Your task to perform on an android device: delete browsing data in the chrome app Image 0: 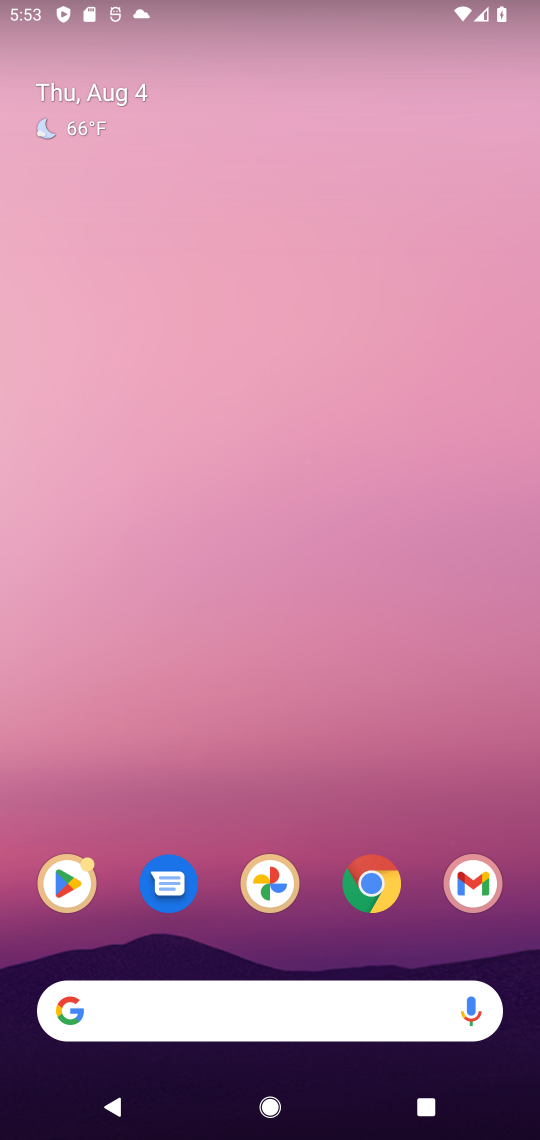
Step 0: click (379, 891)
Your task to perform on an android device: delete browsing data in the chrome app Image 1: 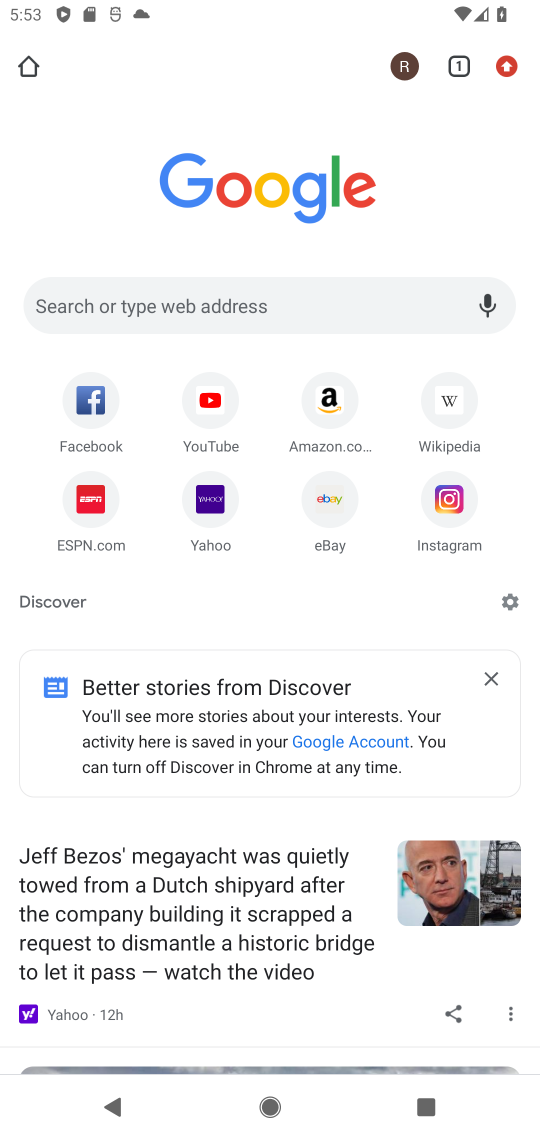
Step 1: click (499, 59)
Your task to perform on an android device: delete browsing data in the chrome app Image 2: 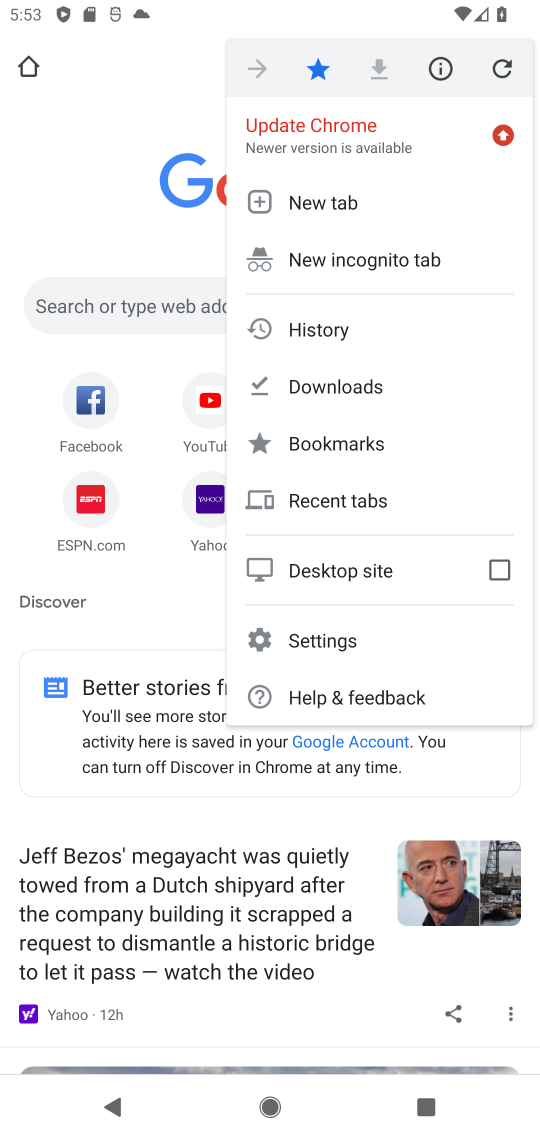
Step 2: click (352, 641)
Your task to perform on an android device: delete browsing data in the chrome app Image 3: 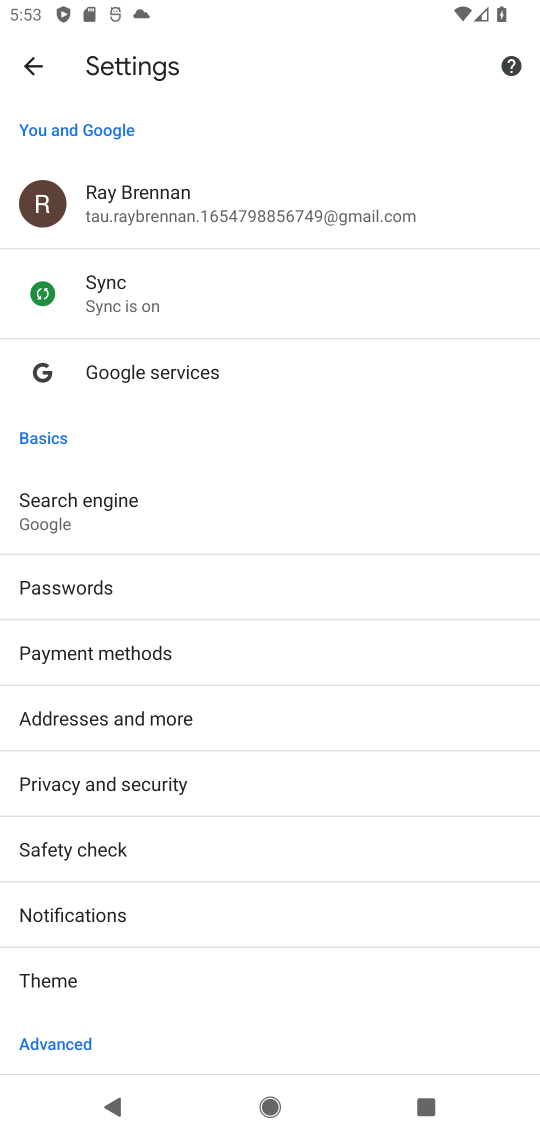
Step 3: click (28, 62)
Your task to perform on an android device: delete browsing data in the chrome app Image 4: 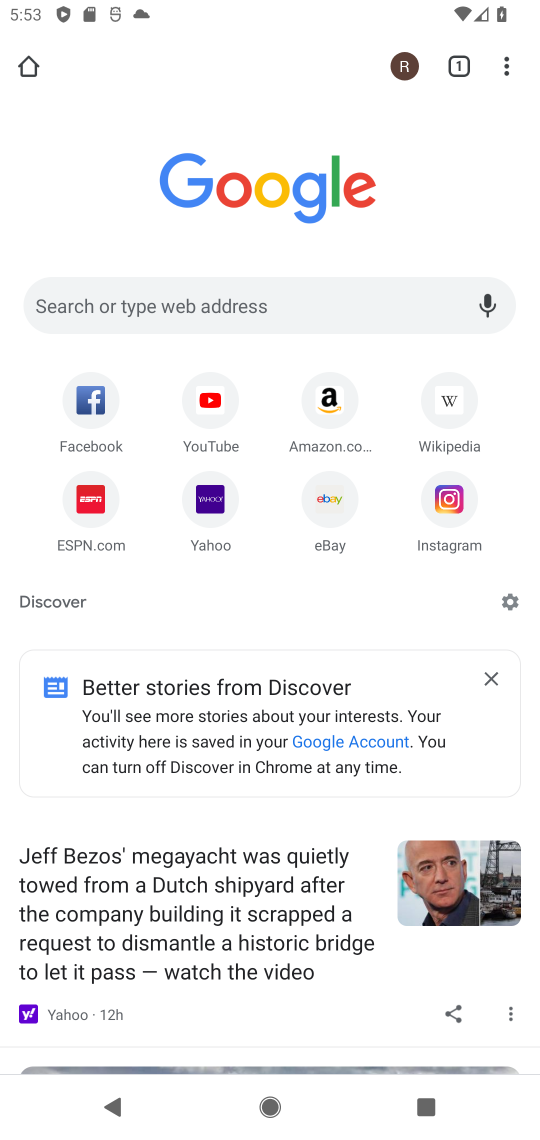
Step 4: click (512, 72)
Your task to perform on an android device: delete browsing data in the chrome app Image 5: 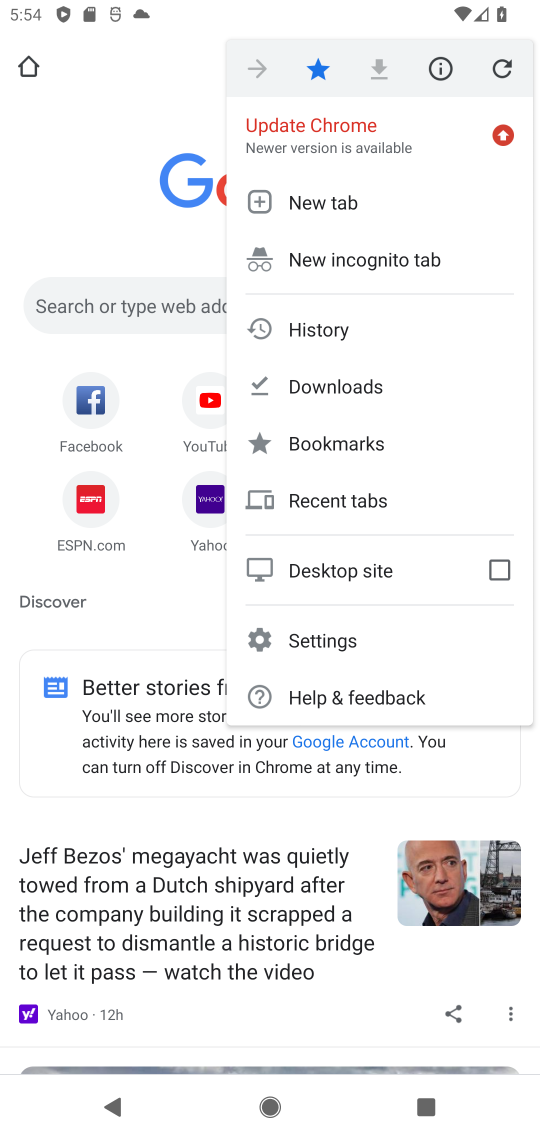
Step 5: click (343, 329)
Your task to perform on an android device: delete browsing data in the chrome app Image 6: 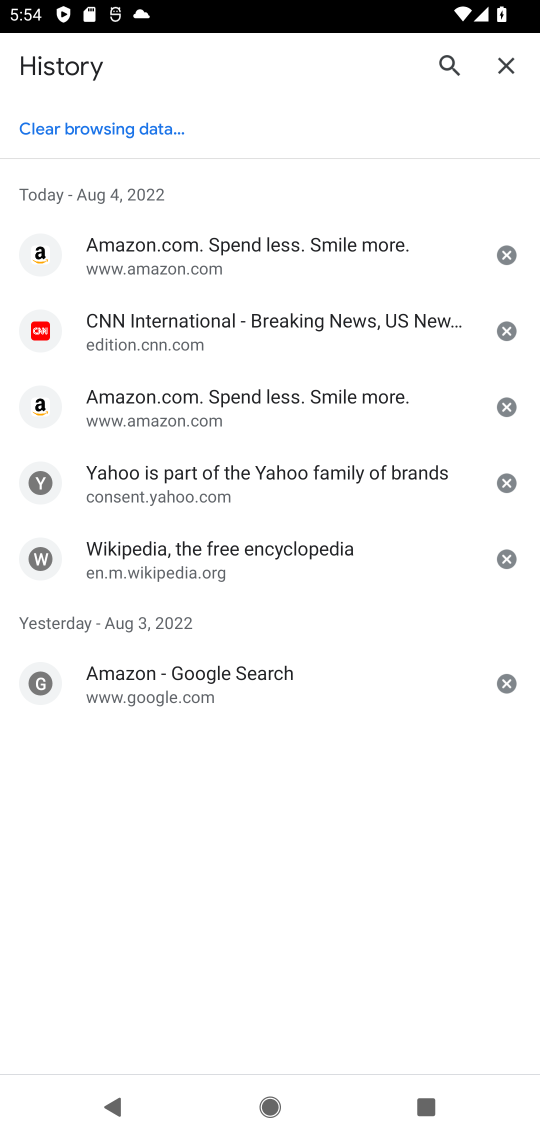
Step 6: click (153, 132)
Your task to perform on an android device: delete browsing data in the chrome app Image 7: 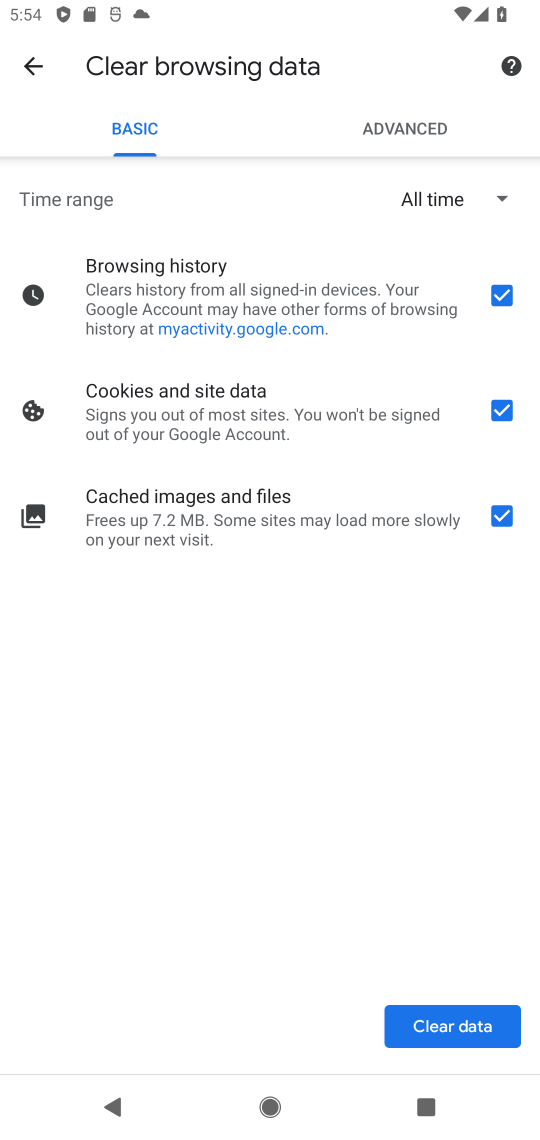
Step 7: click (478, 1025)
Your task to perform on an android device: delete browsing data in the chrome app Image 8: 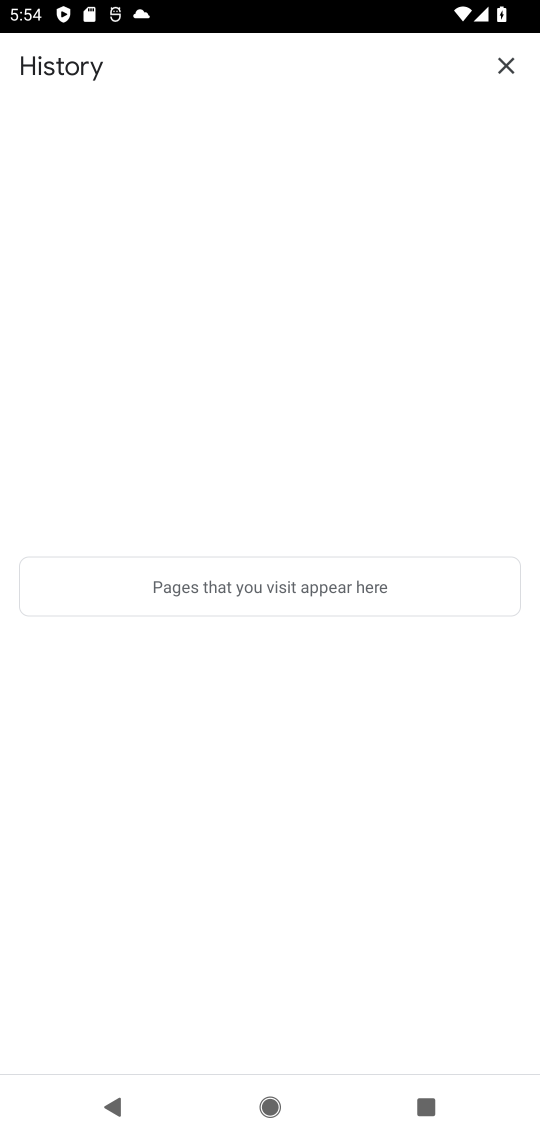
Step 8: task complete